Your task to perform on an android device: turn on wifi Image 0: 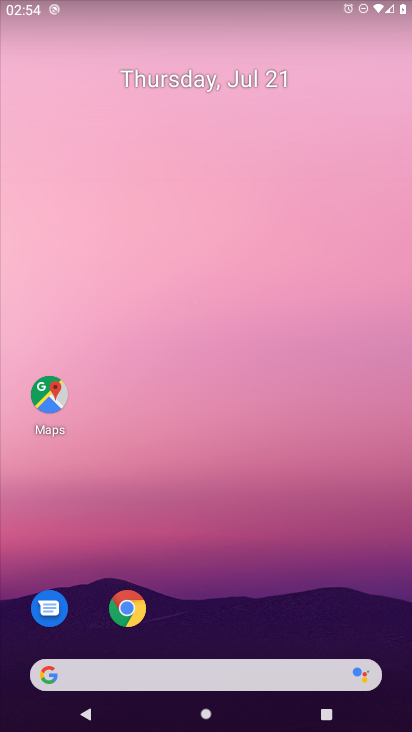
Step 0: press home button
Your task to perform on an android device: turn on wifi Image 1: 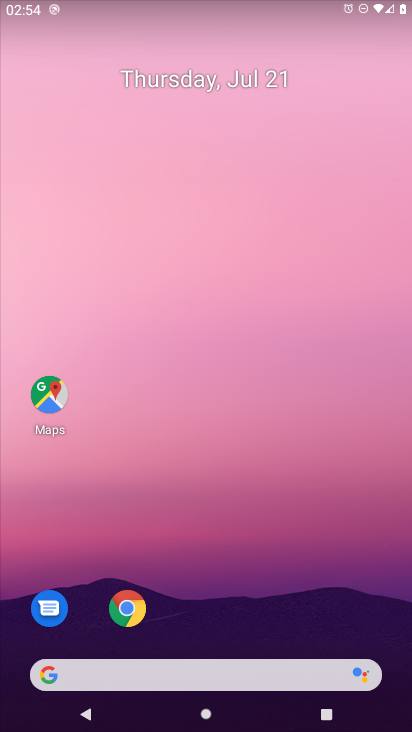
Step 1: task complete